Your task to perform on an android device: Find coffee shops on Maps Image 0: 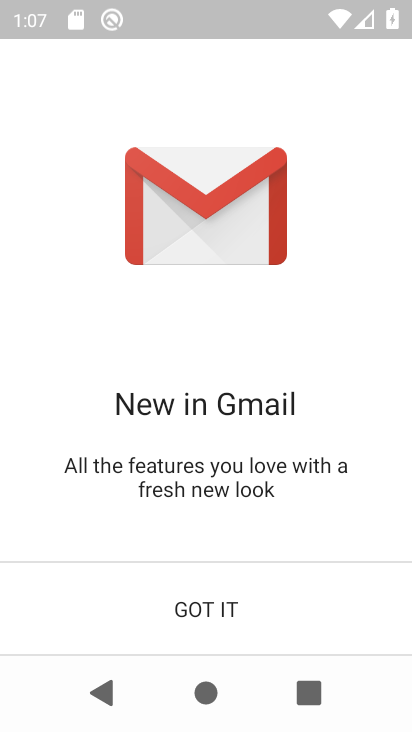
Step 0: click (213, 610)
Your task to perform on an android device: Find coffee shops on Maps Image 1: 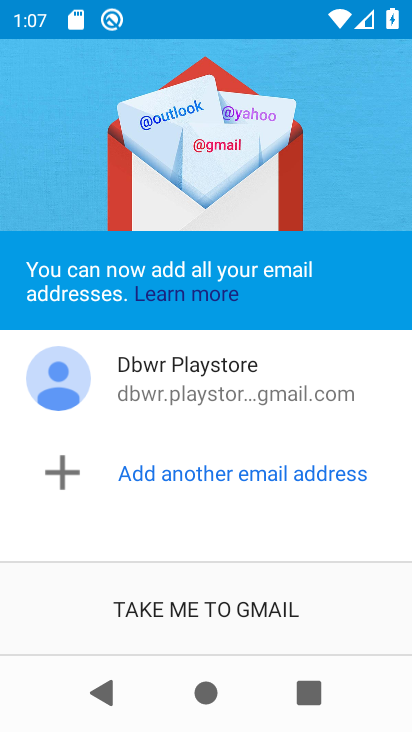
Step 1: press home button
Your task to perform on an android device: Find coffee shops on Maps Image 2: 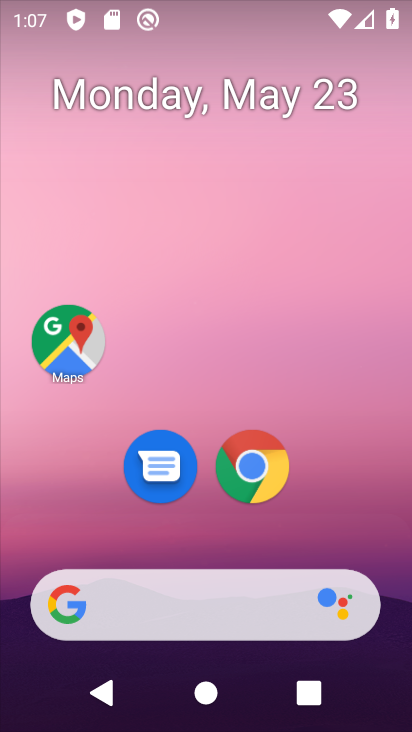
Step 2: click (63, 342)
Your task to perform on an android device: Find coffee shops on Maps Image 3: 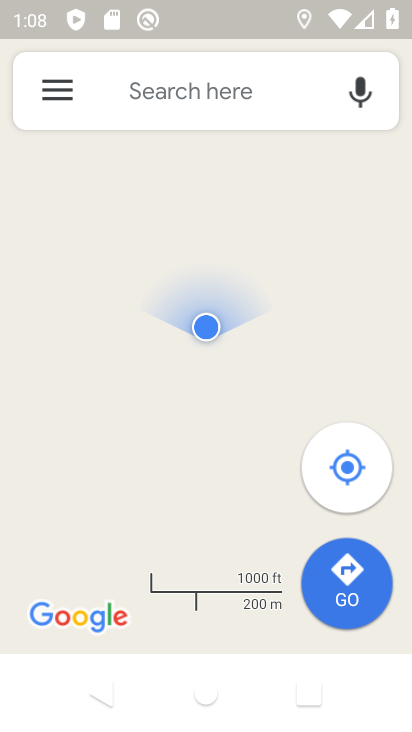
Step 3: click (202, 115)
Your task to perform on an android device: Find coffee shops on Maps Image 4: 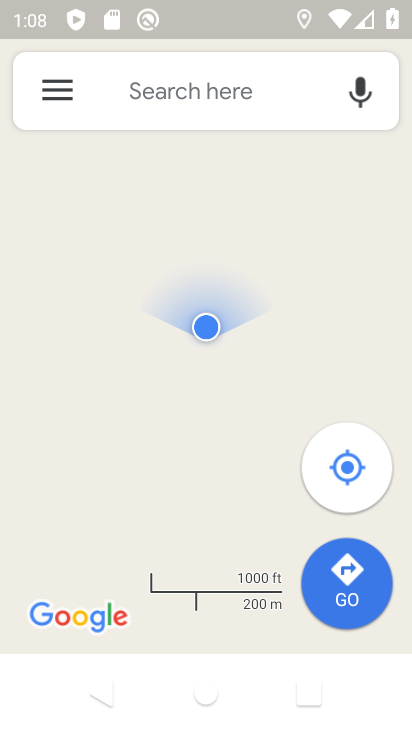
Step 4: click (160, 90)
Your task to perform on an android device: Find coffee shops on Maps Image 5: 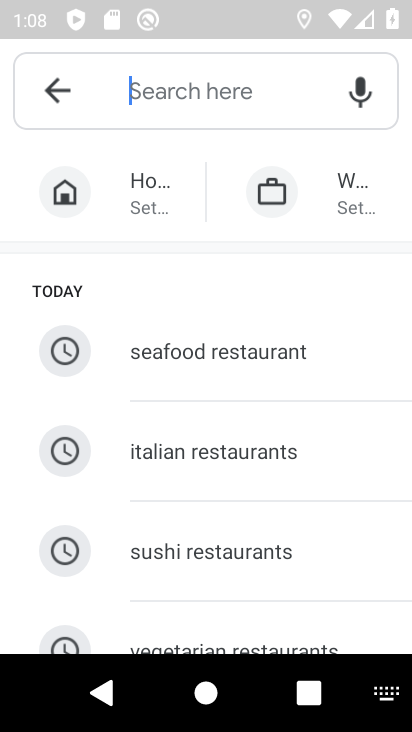
Step 5: type "coffee shopes"
Your task to perform on an android device: Find coffee shops on Maps Image 6: 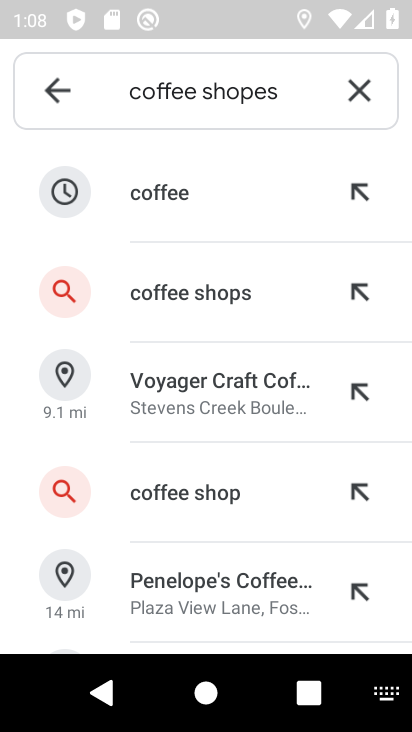
Step 6: click (200, 285)
Your task to perform on an android device: Find coffee shops on Maps Image 7: 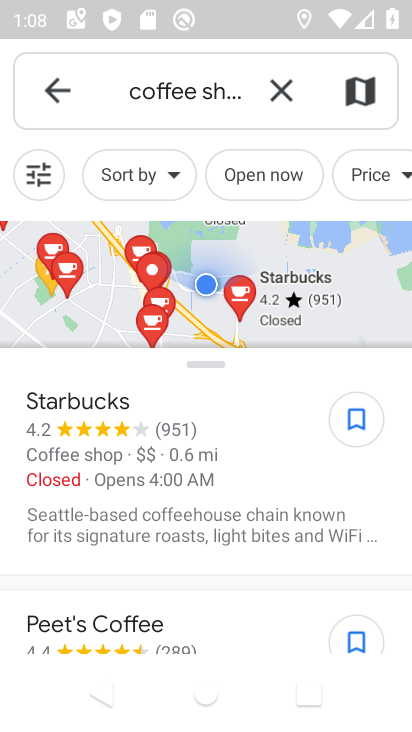
Step 7: task complete